Your task to perform on an android device: open a bookmark in the chrome app Image 0: 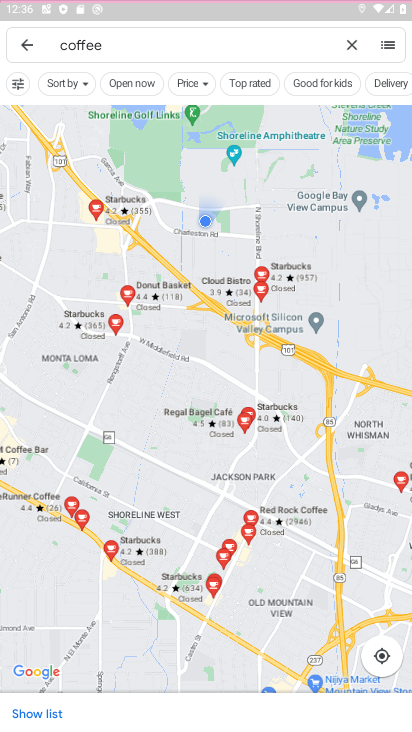
Step 0: click (359, 175)
Your task to perform on an android device: open a bookmark in the chrome app Image 1: 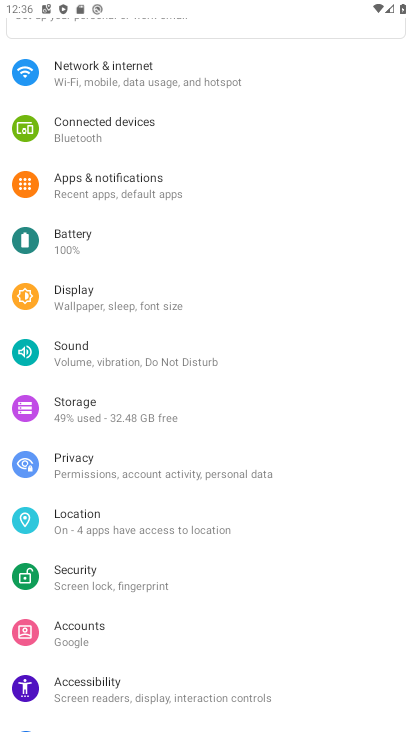
Step 1: press home button
Your task to perform on an android device: open a bookmark in the chrome app Image 2: 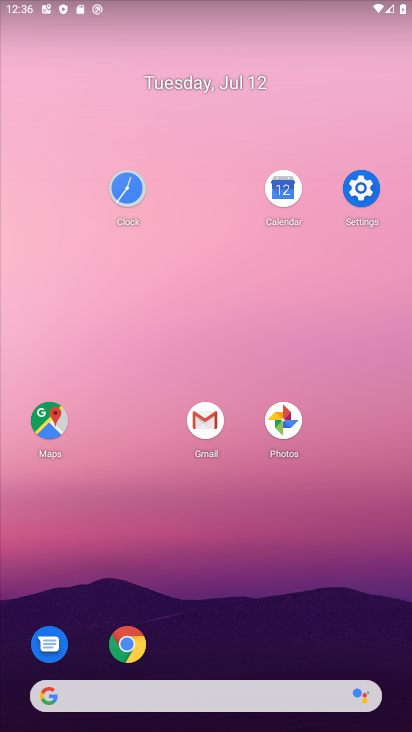
Step 2: click (135, 653)
Your task to perform on an android device: open a bookmark in the chrome app Image 3: 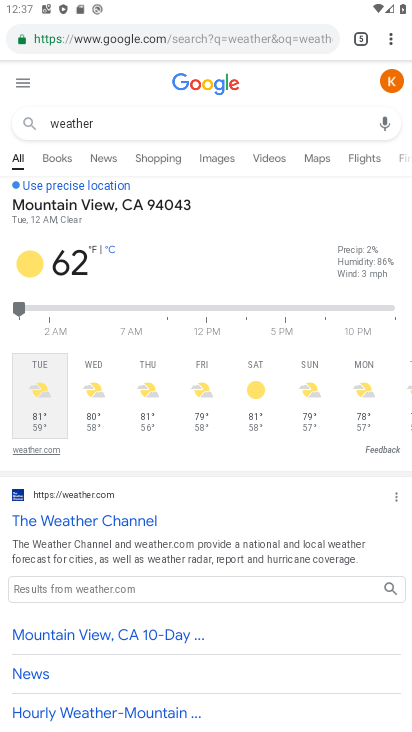
Step 3: click (386, 47)
Your task to perform on an android device: open a bookmark in the chrome app Image 4: 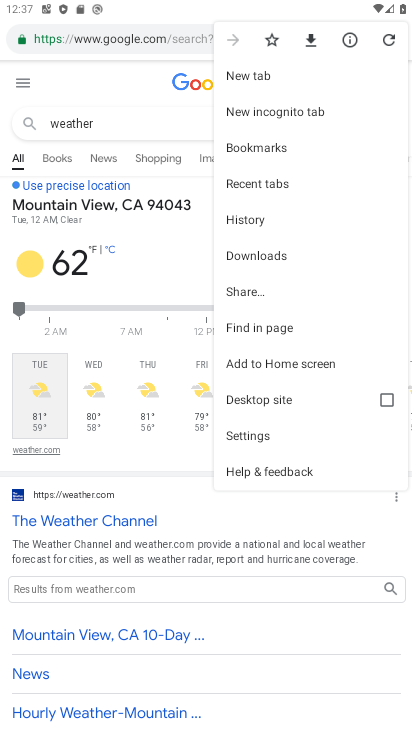
Step 4: click (277, 151)
Your task to perform on an android device: open a bookmark in the chrome app Image 5: 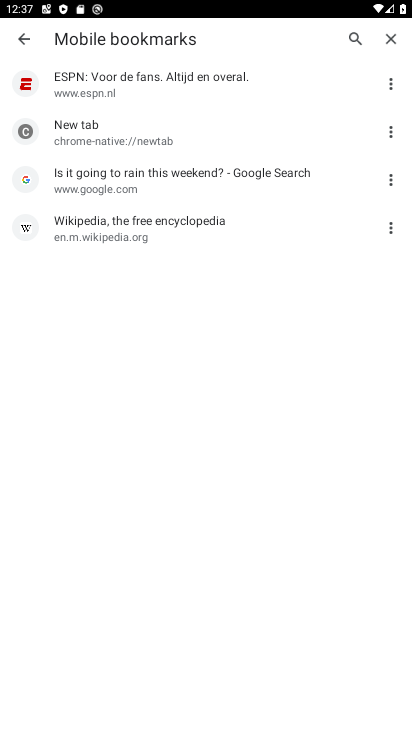
Step 5: task complete